Your task to perform on an android device: change the upload size in google photos Image 0: 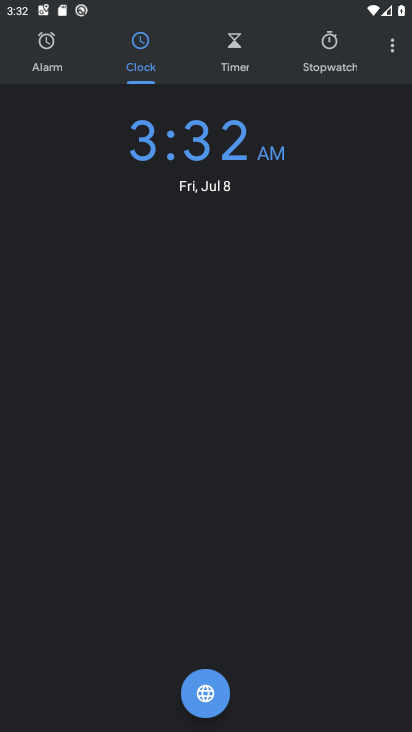
Step 0: press home button
Your task to perform on an android device: change the upload size in google photos Image 1: 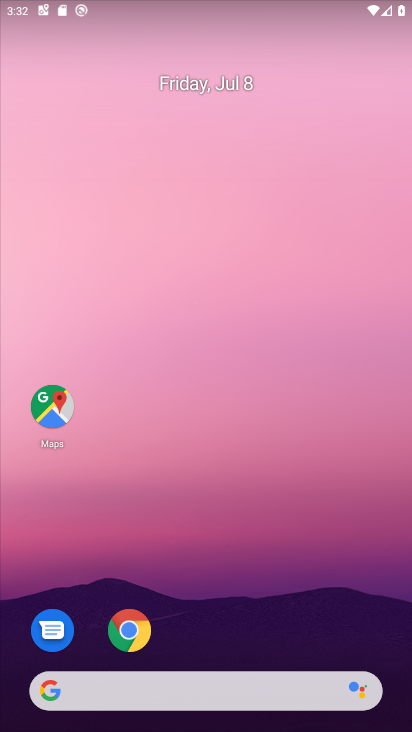
Step 1: drag from (305, 575) to (310, 94)
Your task to perform on an android device: change the upload size in google photos Image 2: 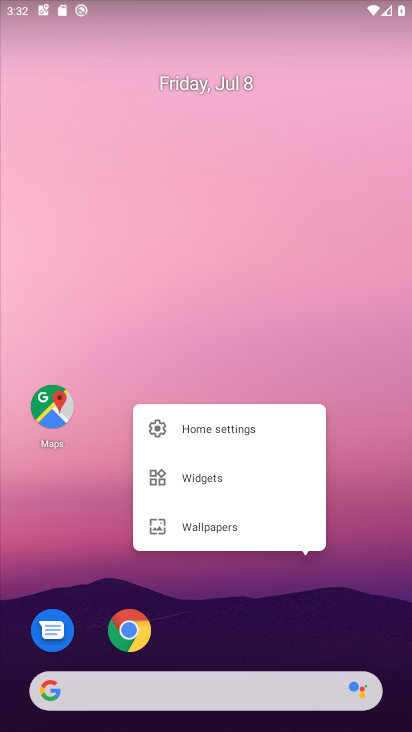
Step 2: click (310, 320)
Your task to perform on an android device: change the upload size in google photos Image 3: 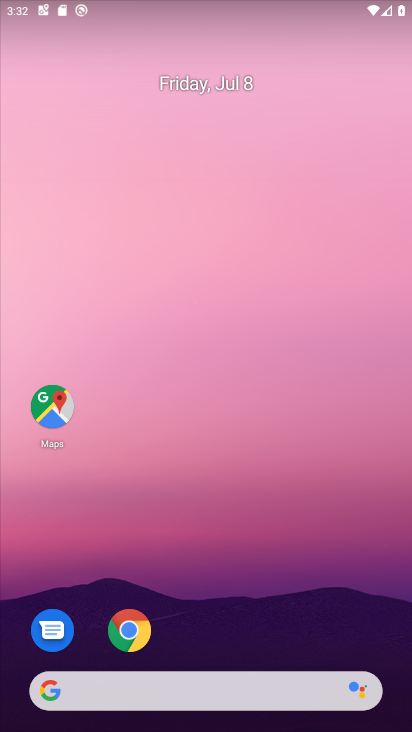
Step 3: drag from (266, 626) to (315, 74)
Your task to perform on an android device: change the upload size in google photos Image 4: 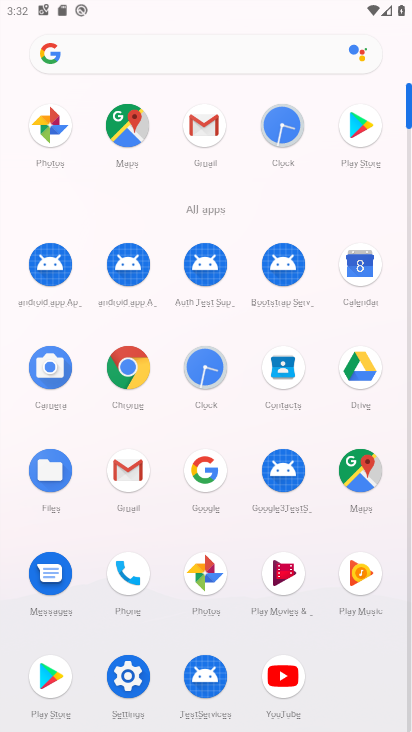
Step 4: click (204, 578)
Your task to perform on an android device: change the upload size in google photos Image 5: 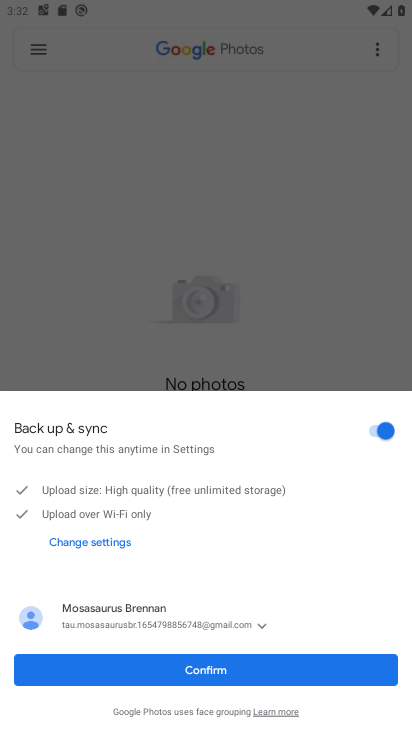
Step 5: click (287, 680)
Your task to perform on an android device: change the upload size in google photos Image 6: 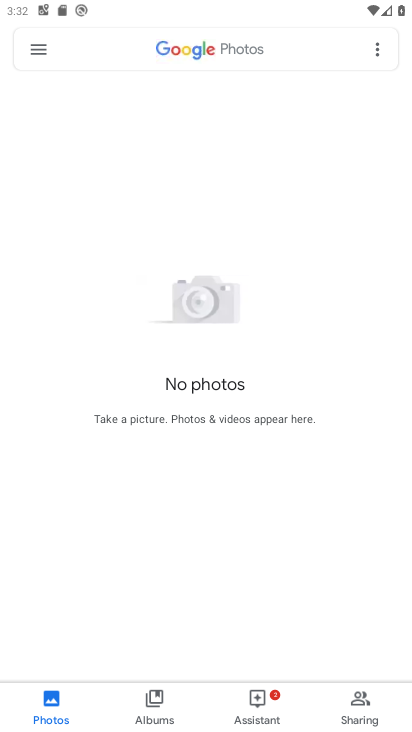
Step 6: click (37, 44)
Your task to perform on an android device: change the upload size in google photos Image 7: 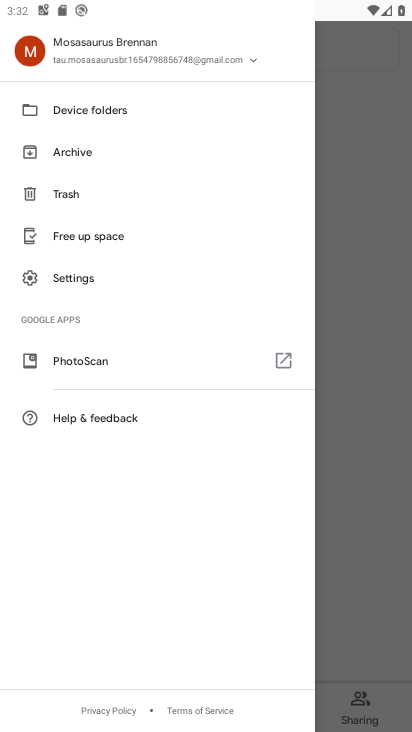
Step 7: click (69, 274)
Your task to perform on an android device: change the upload size in google photos Image 8: 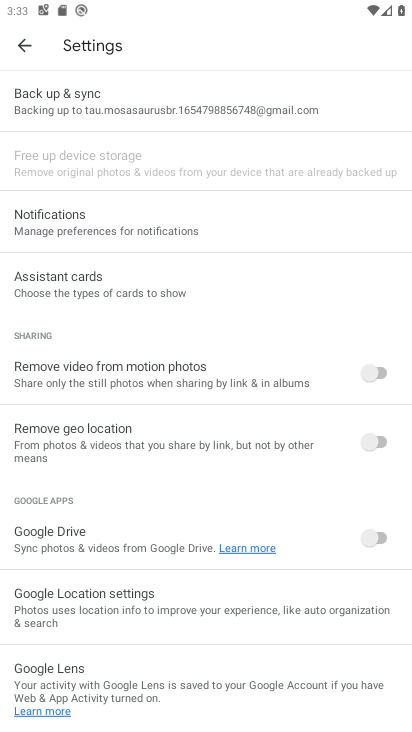
Step 8: click (179, 108)
Your task to perform on an android device: change the upload size in google photos Image 9: 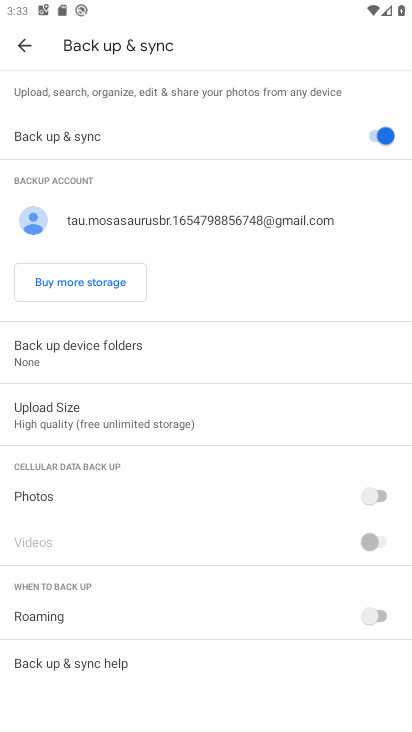
Step 9: click (144, 413)
Your task to perform on an android device: change the upload size in google photos Image 10: 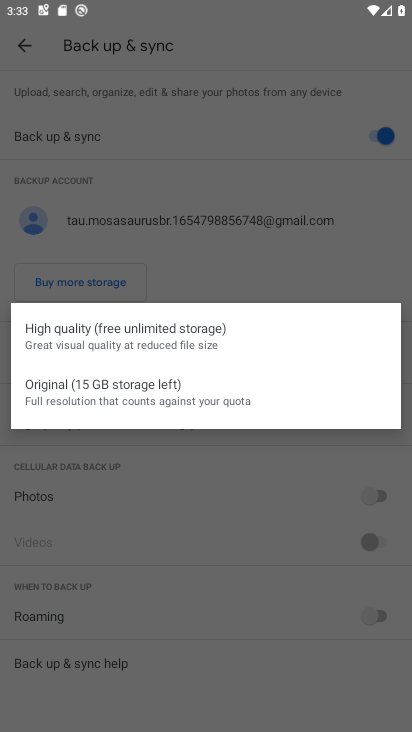
Step 10: click (131, 385)
Your task to perform on an android device: change the upload size in google photos Image 11: 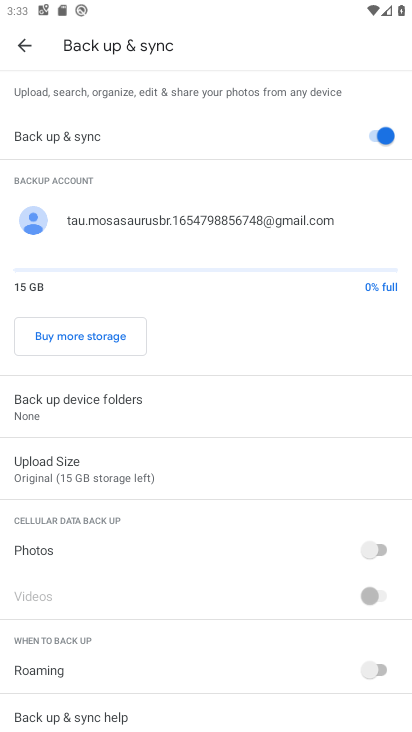
Step 11: task complete